Your task to perform on an android device: Open the web browser Image 0: 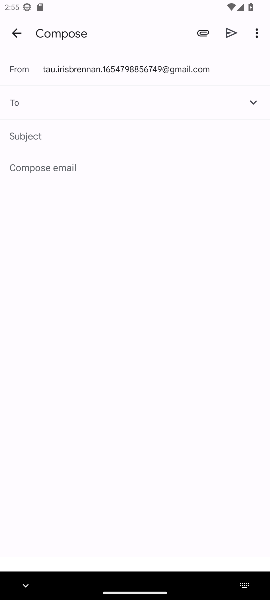
Step 0: press home button
Your task to perform on an android device: Open the web browser Image 1: 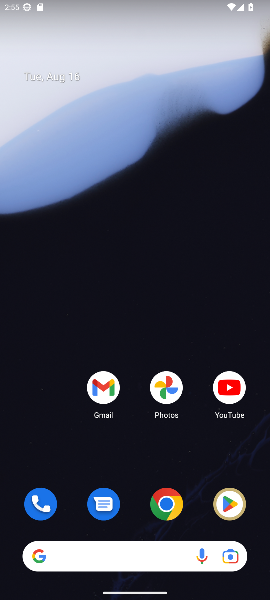
Step 1: click (175, 498)
Your task to perform on an android device: Open the web browser Image 2: 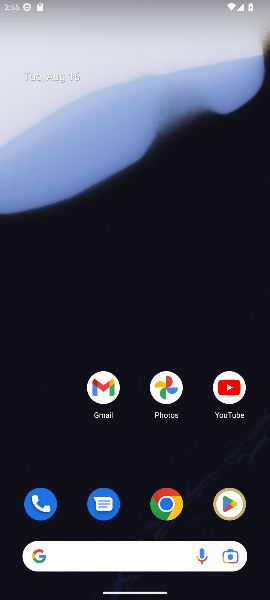
Step 2: click (160, 510)
Your task to perform on an android device: Open the web browser Image 3: 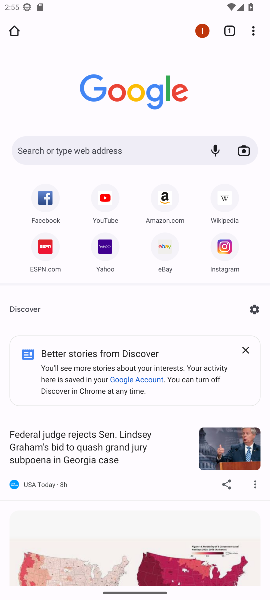
Step 3: task complete